Your task to perform on an android device: Search for macbook pro on amazon, select the first entry, and add it to the cart. Image 0: 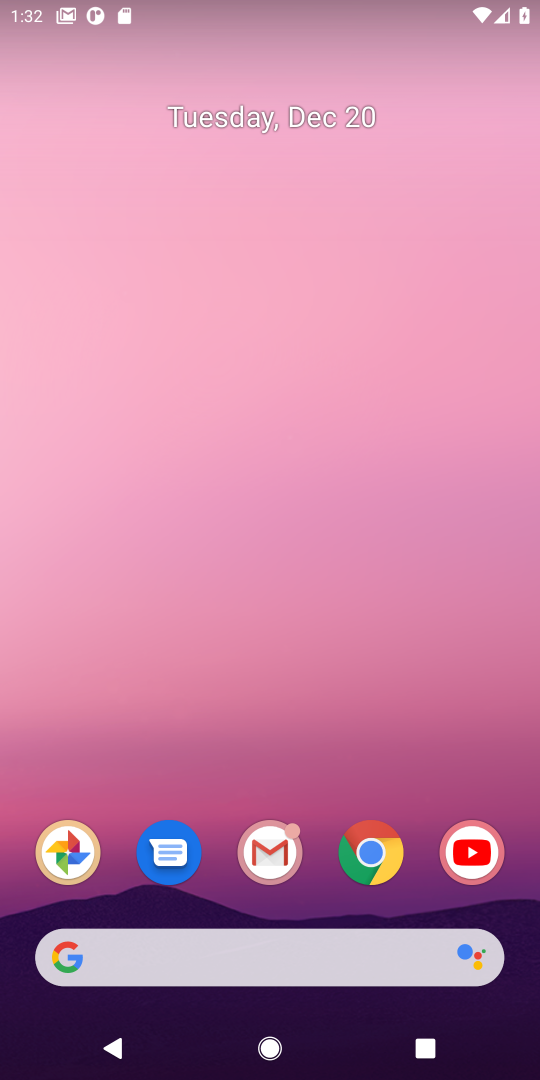
Step 0: click (369, 859)
Your task to perform on an android device: Search for macbook pro on amazon, select the first entry, and add it to the cart. Image 1: 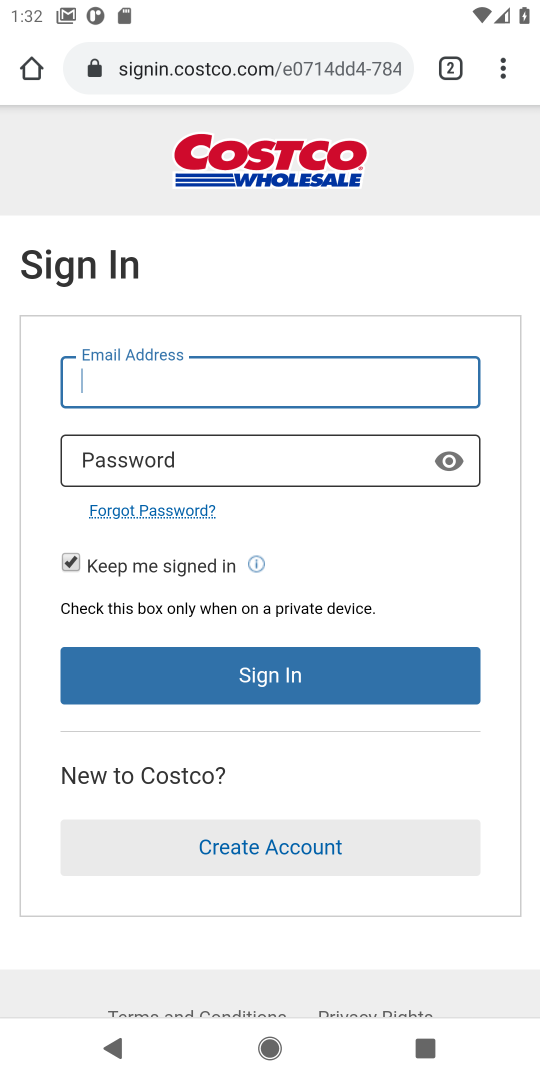
Step 1: click (188, 79)
Your task to perform on an android device: Search for macbook pro on amazon, select the first entry, and add it to the cart. Image 2: 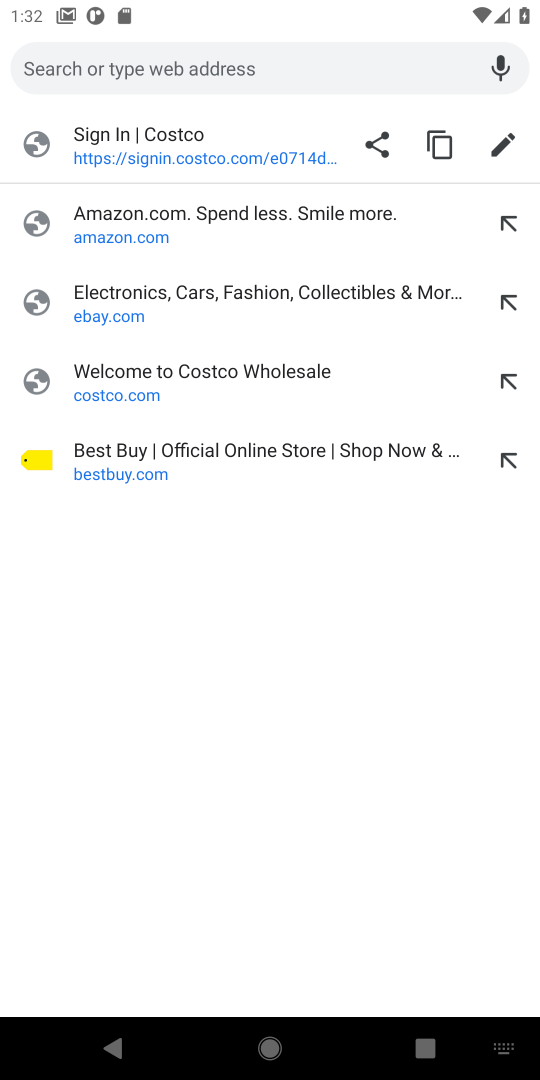
Step 2: click (112, 238)
Your task to perform on an android device: Search for macbook pro on amazon, select the first entry, and add it to the cart. Image 3: 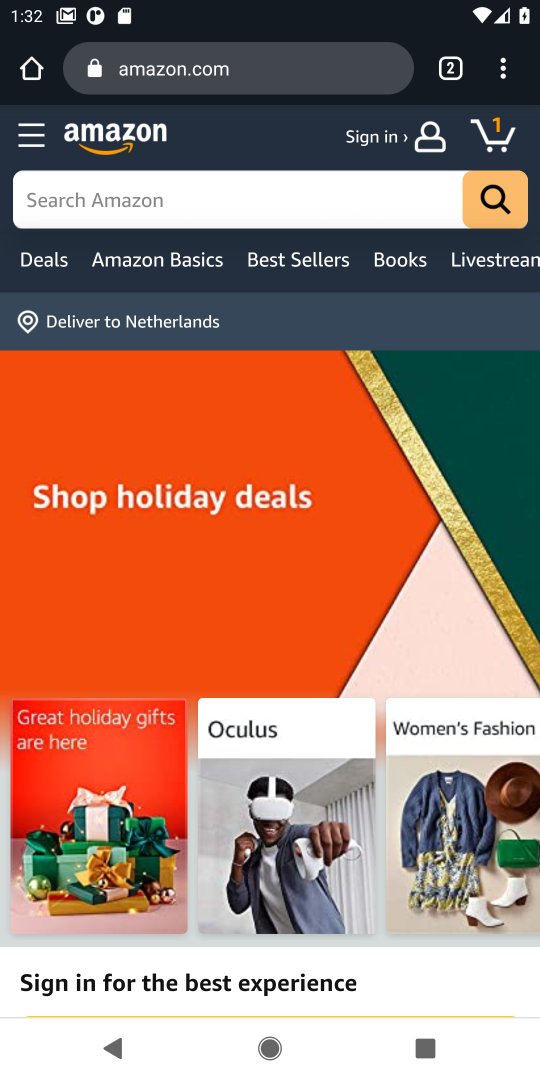
Step 3: click (113, 207)
Your task to perform on an android device: Search for macbook pro on amazon, select the first entry, and add it to the cart. Image 4: 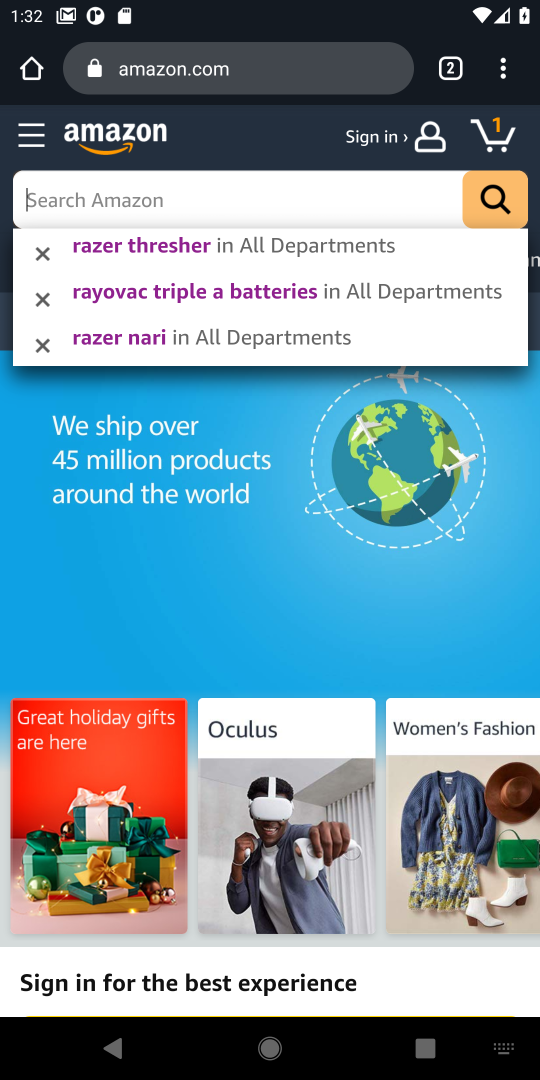
Step 4: type "macbook pro"
Your task to perform on an android device: Search for macbook pro on amazon, select the first entry, and add it to the cart. Image 5: 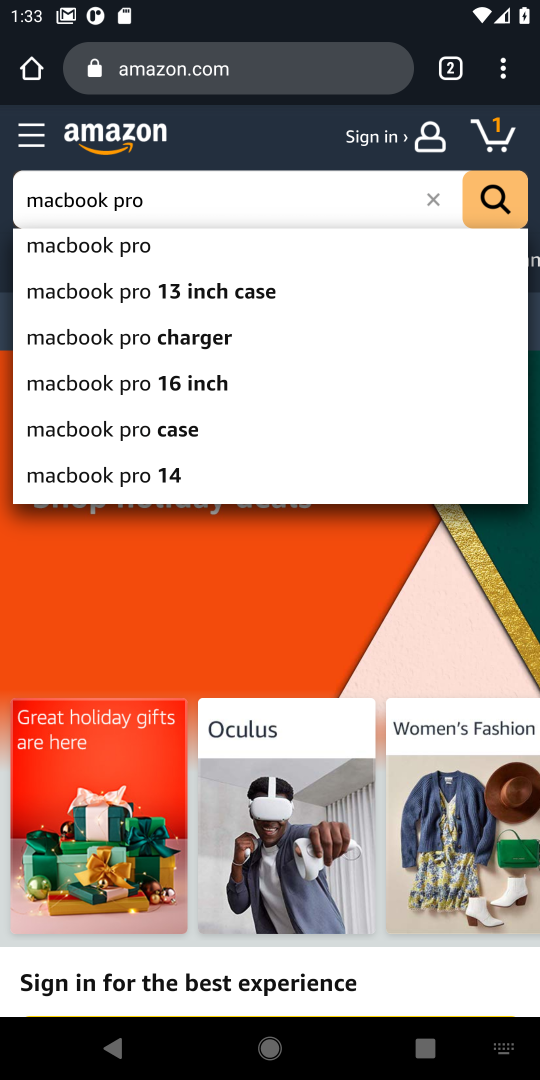
Step 5: click (126, 251)
Your task to perform on an android device: Search for macbook pro on amazon, select the first entry, and add it to the cart. Image 6: 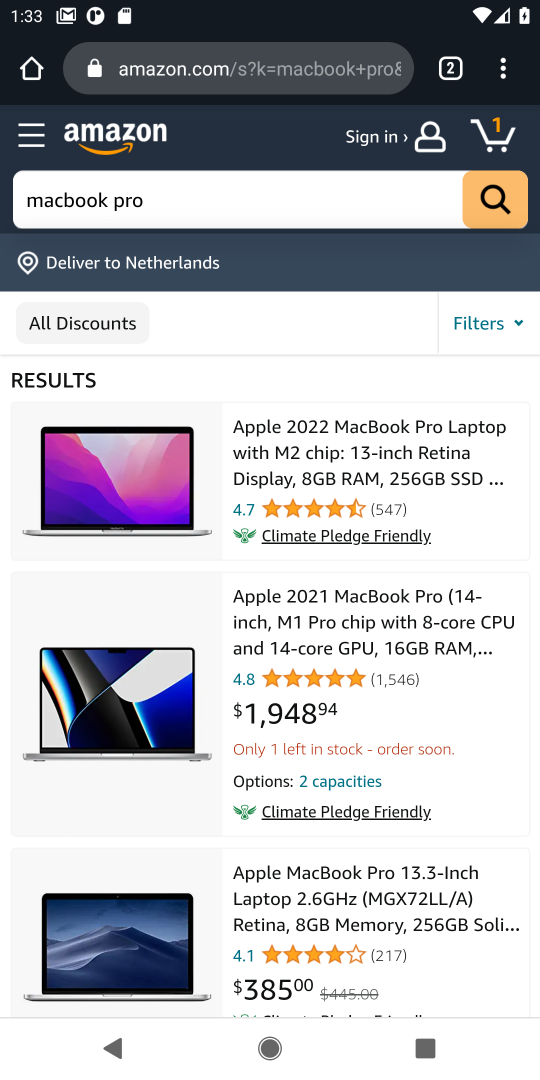
Step 6: click (354, 480)
Your task to perform on an android device: Search for macbook pro on amazon, select the first entry, and add it to the cart. Image 7: 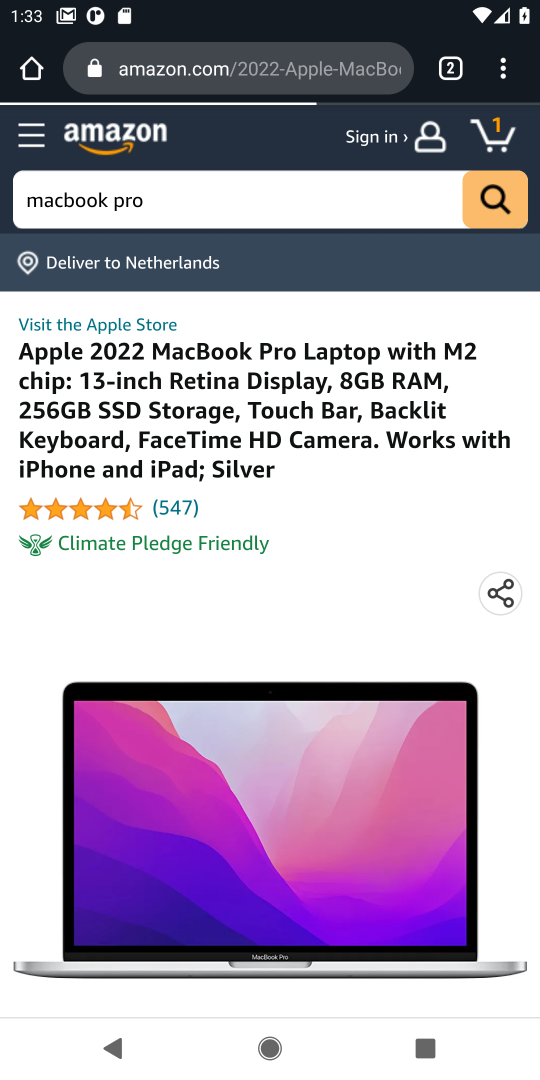
Step 7: task complete